Your task to perform on an android device: Open eBay Image 0: 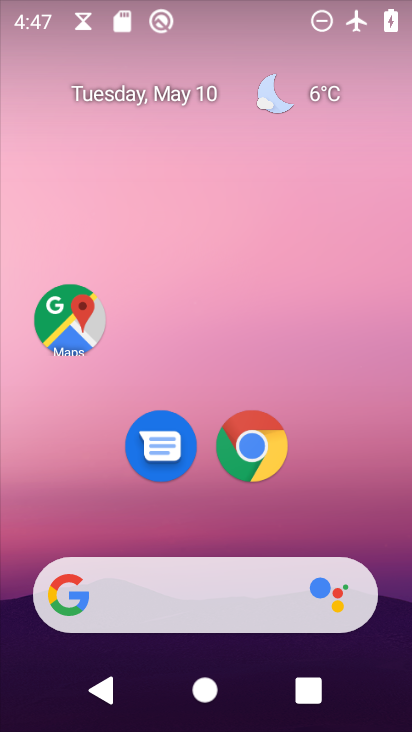
Step 0: click (258, 443)
Your task to perform on an android device: Open eBay Image 1: 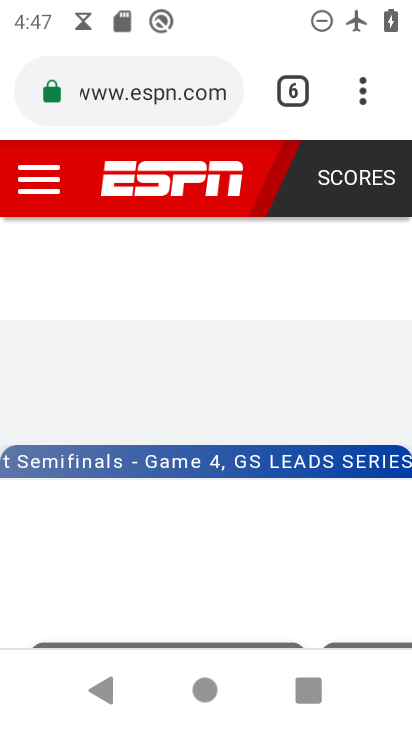
Step 1: click (295, 85)
Your task to perform on an android device: Open eBay Image 2: 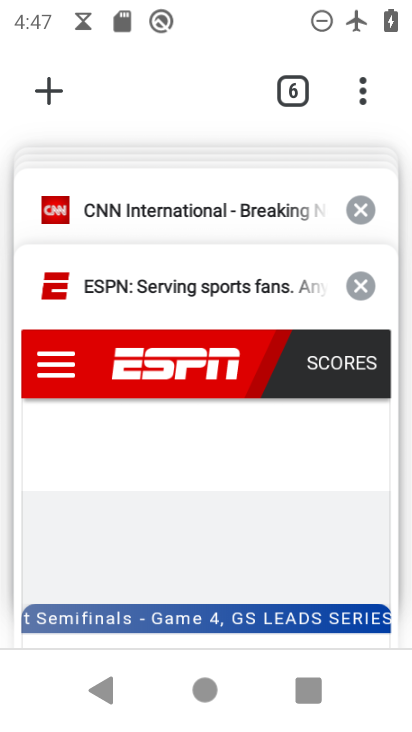
Step 2: drag from (188, 209) to (208, 537)
Your task to perform on an android device: Open eBay Image 3: 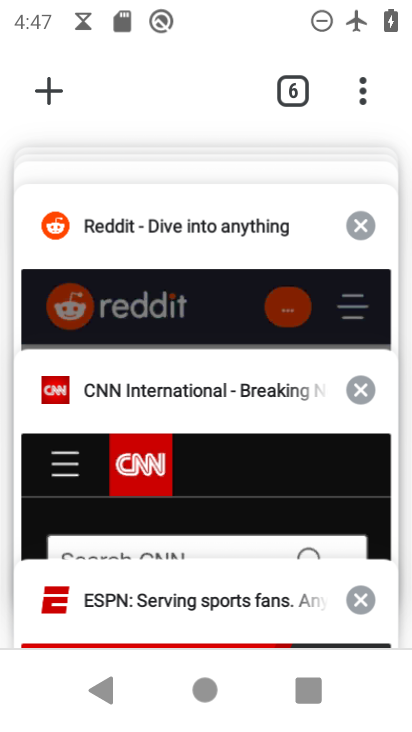
Step 3: drag from (175, 222) to (213, 522)
Your task to perform on an android device: Open eBay Image 4: 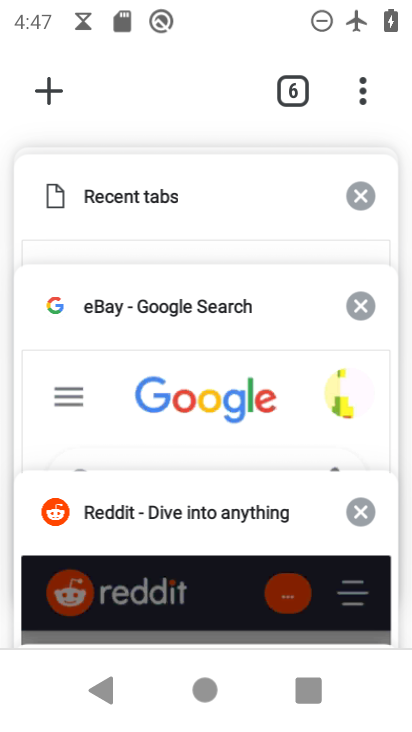
Step 4: click (175, 298)
Your task to perform on an android device: Open eBay Image 5: 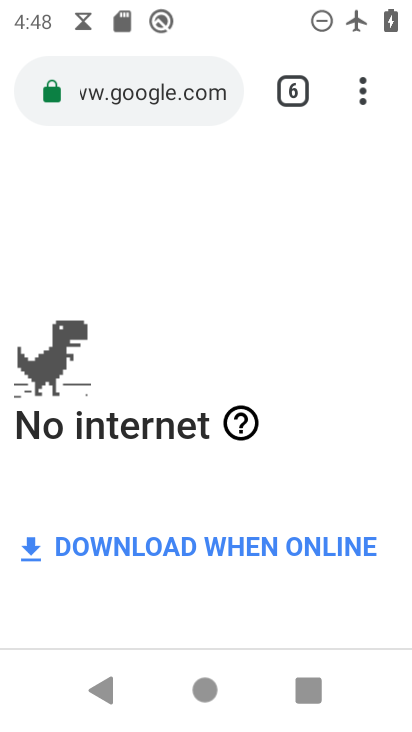
Step 5: task complete